Your task to perform on an android device: toggle location history Image 0: 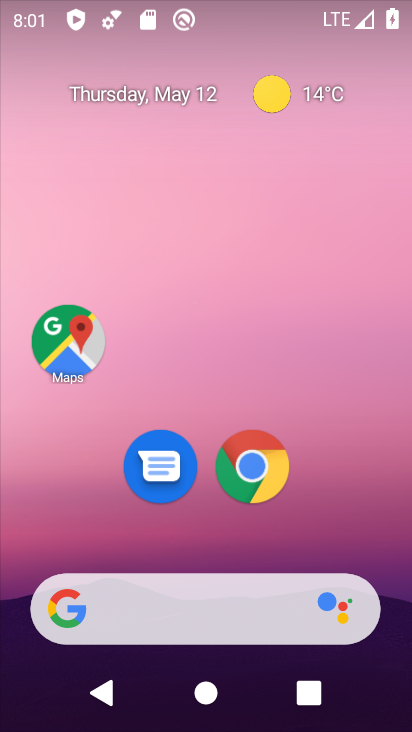
Step 0: drag from (209, 535) to (248, 12)
Your task to perform on an android device: toggle location history Image 1: 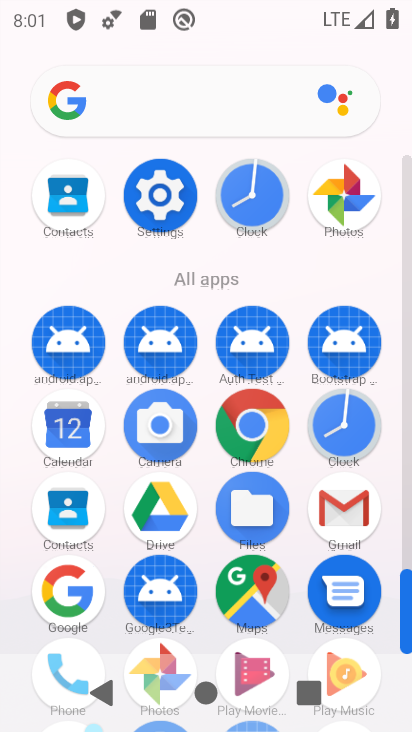
Step 1: click (164, 184)
Your task to perform on an android device: toggle location history Image 2: 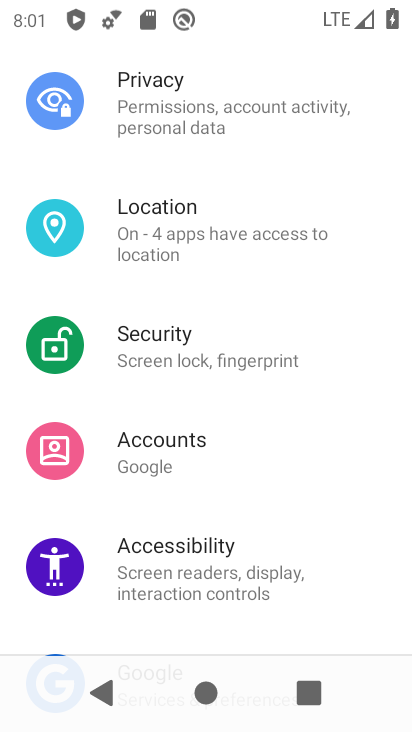
Step 2: click (164, 247)
Your task to perform on an android device: toggle location history Image 3: 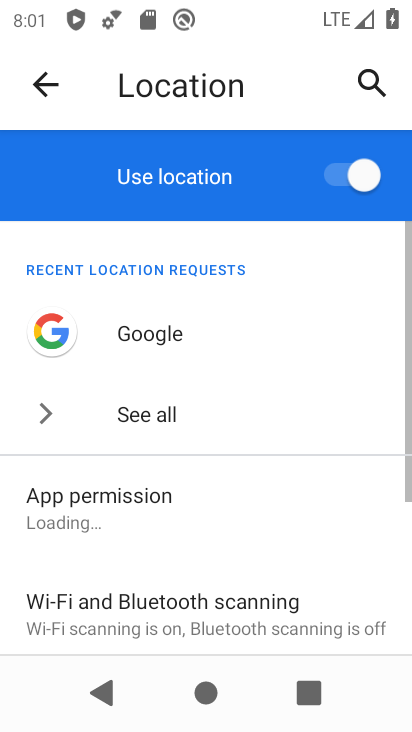
Step 3: drag from (187, 534) to (228, 10)
Your task to perform on an android device: toggle location history Image 4: 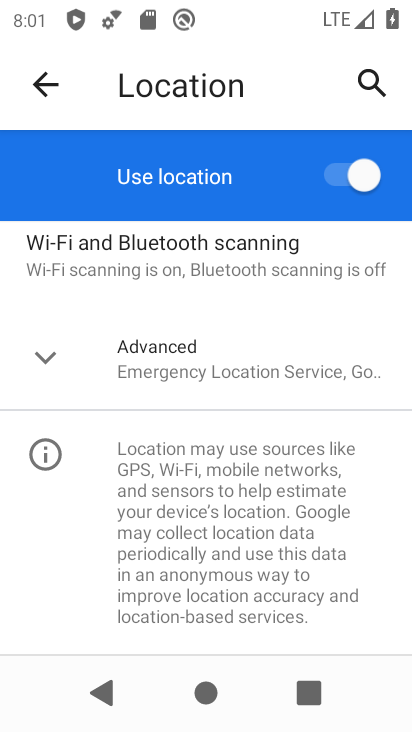
Step 4: click (44, 350)
Your task to perform on an android device: toggle location history Image 5: 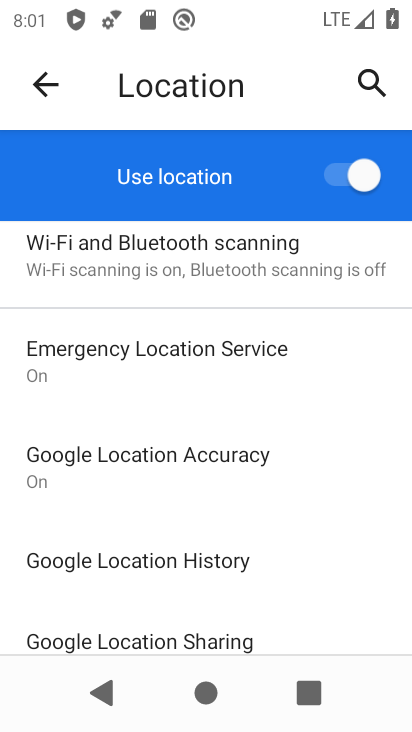
Step 5: click (207, 561)
Your task to perform on an android device: toggle location history Image 6: 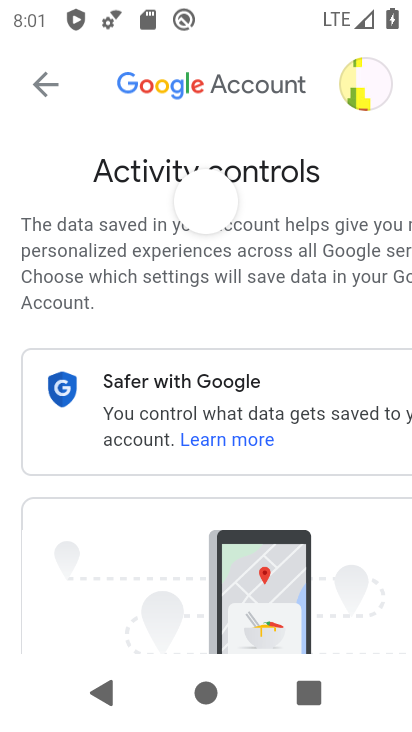
Step 6: drag from (158, 568) to (223, 3)
Your task to perform on an android device: toggle location history Image 7: 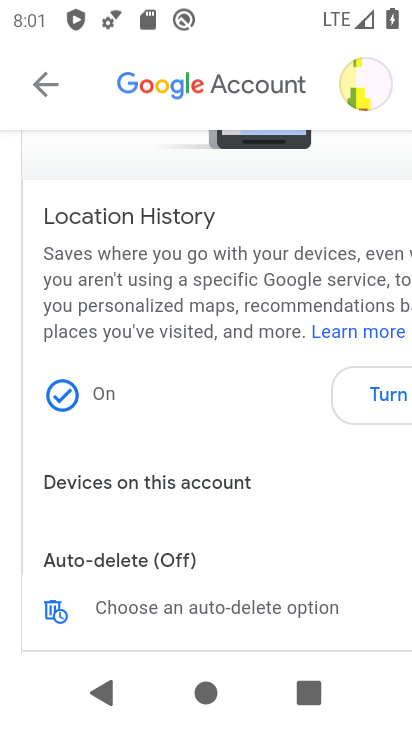
Step 7: click (373, 403)
Your task to perform on an android device: toggle location history Image 8: 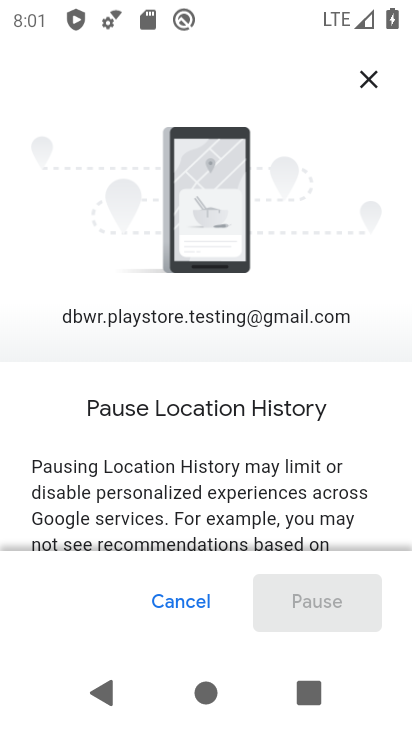
Step 8: drag from (258, 508) to (294, 16)
Your task to perform on an android device: toggle location history Image 9: 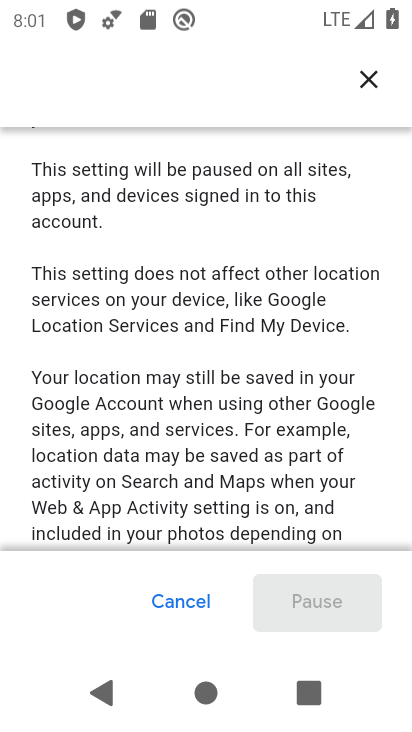
Step 9: drag from (213, 488) to (243, 24)
Your task to perform on an android device: toggle location history Image 10: 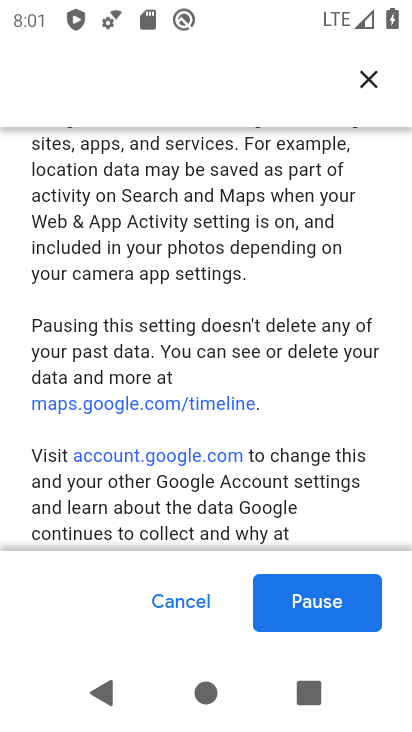
Step 10: drag from (245, 502) to (345, 1)
Your task to perform on an android device: toggle location history Image 11: 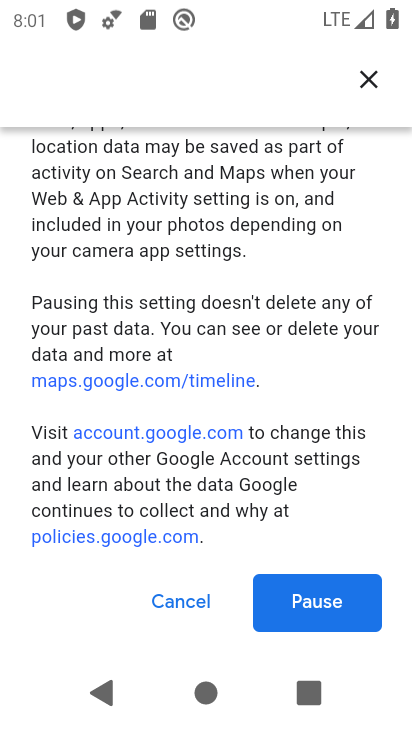
Step 11: click (323, 613)
Your task to perform on an android device: toggle location history Image 12: 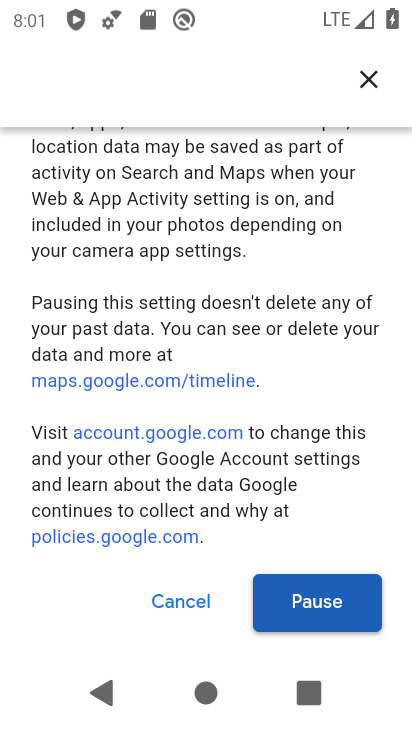
Step 12: click (321, 604)
Your task to perform on an android device: toggle location history Image 13: 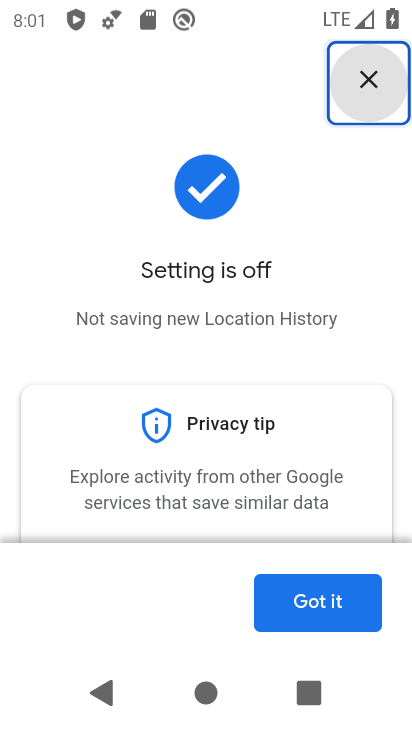
Step 13: task complete